Your task to perform on an android device: Open wifi settings Image 0: 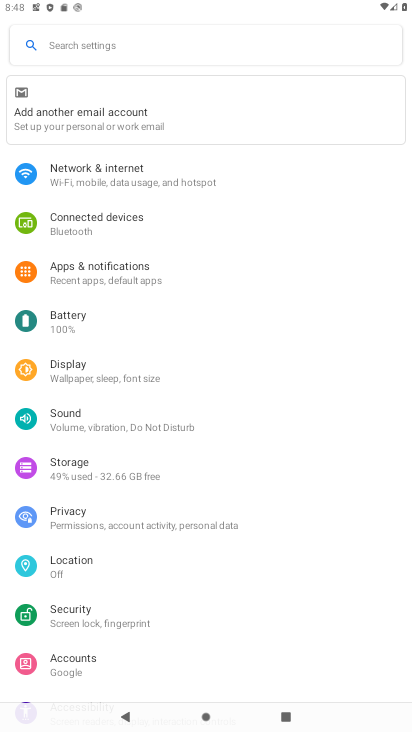
Step 0: drag from (275, 8) to (228, 541)
Your task to perform on an android device: Open wifi settings Image 1: 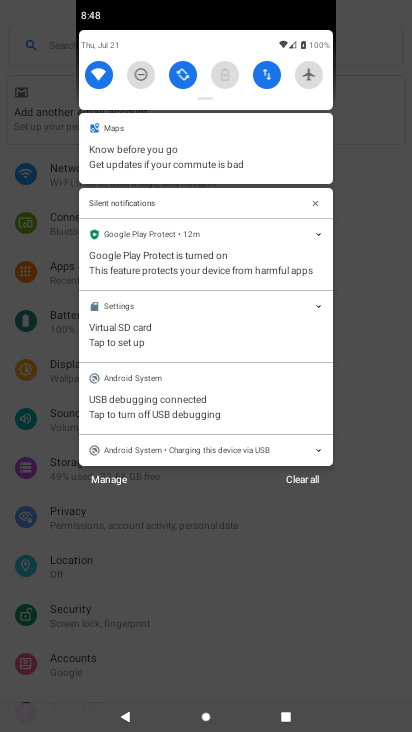
Step 1: click (99, 72)
Your task to perform on an android device: Open wifi settings Image 2: 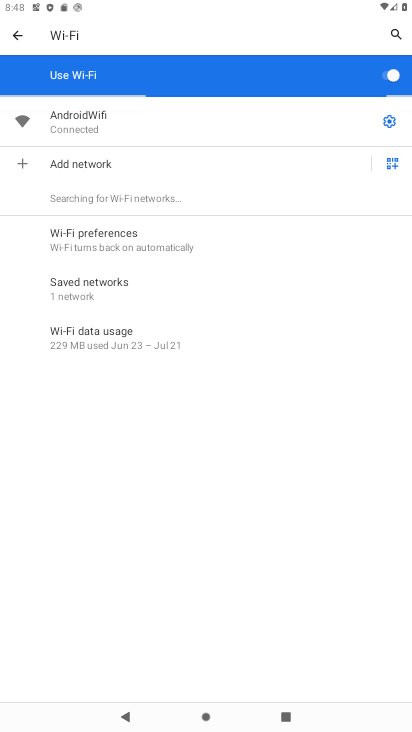
Step 2: task complete